Your task to perform on an android device: all mails in gmail Image 0: 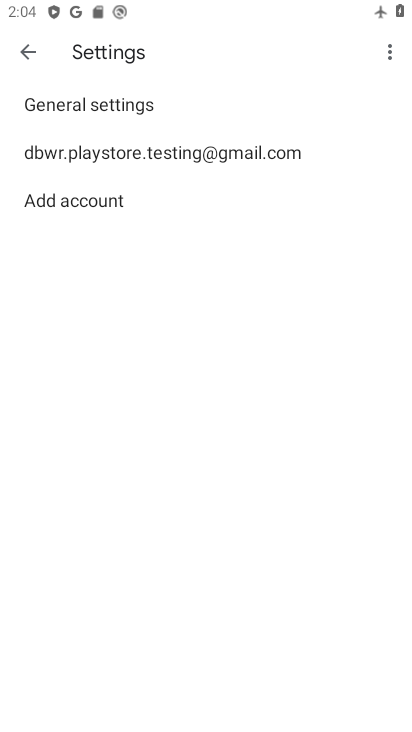
Step 0: press home button
Your task to perform on an android device: all mails in gmail Image 1: 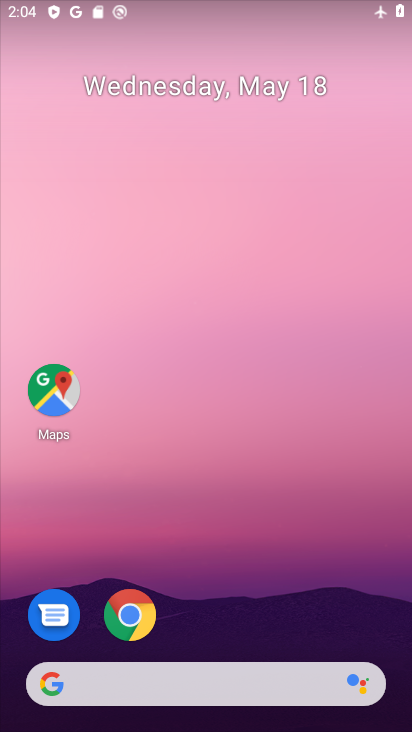
Step 1: drag from (21, 493) to (44, 267)
Your task to perform on an android device: all mails in gmail Image 2: 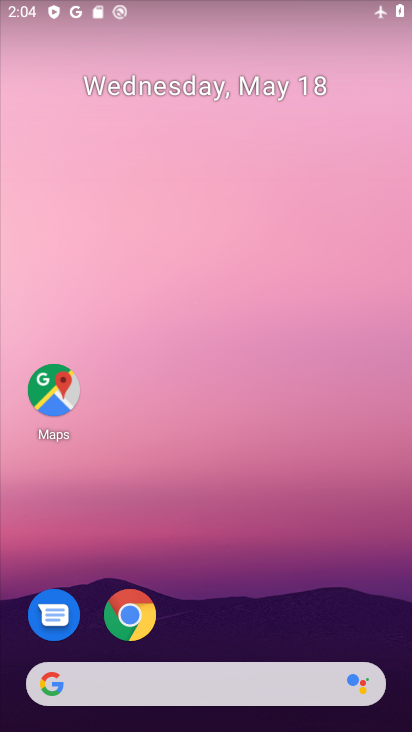
Step 2: drag from (223, 543) to (236, 134)
Your task to perform on an android device: all mails in gmail Image 3: 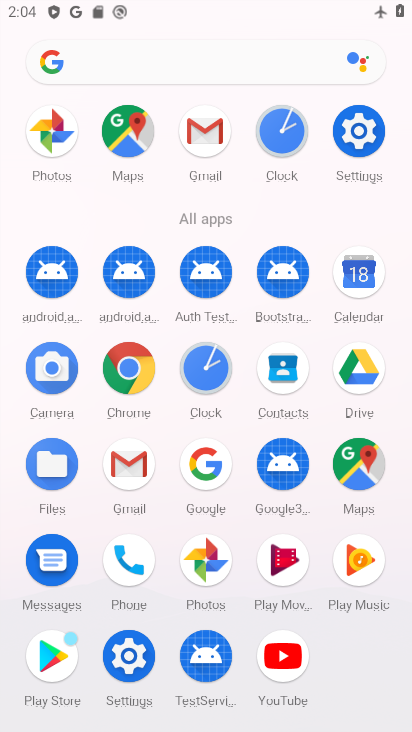
Step 3: click (211, 145)
Your task to perform on an android device: all mails in gmail Image 4: 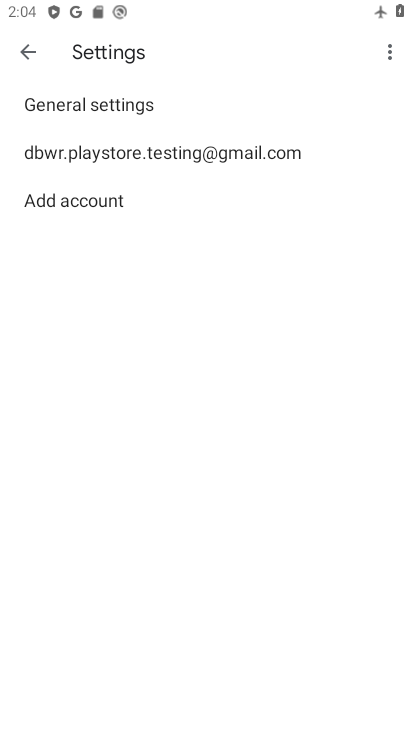
Step 4: click (147, 153)
Your task to perform on an android device: all mails in gmail Image 5: 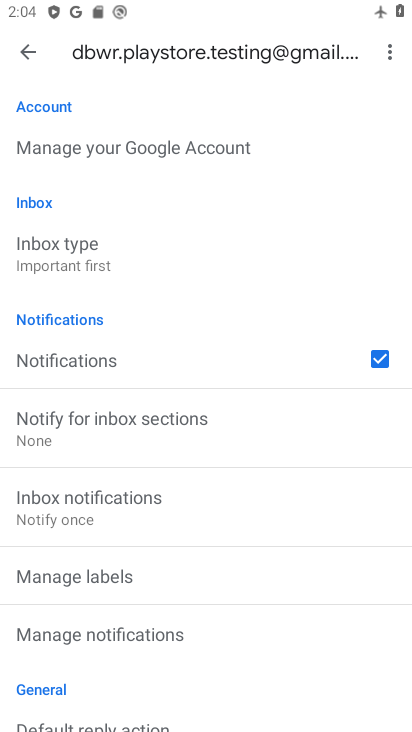
Step 5: click (28, 55)
Your task to perform on an android device: all mails in gmail Image 6: 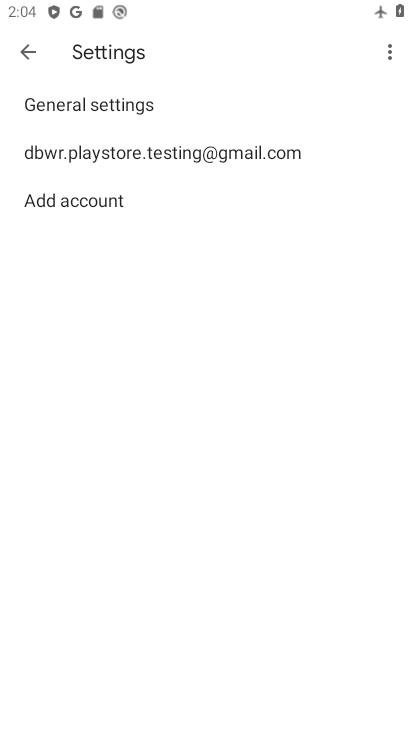
Step 6: click (28, 55)
Your task to perform on an android device: all mails in gmail Image 7: 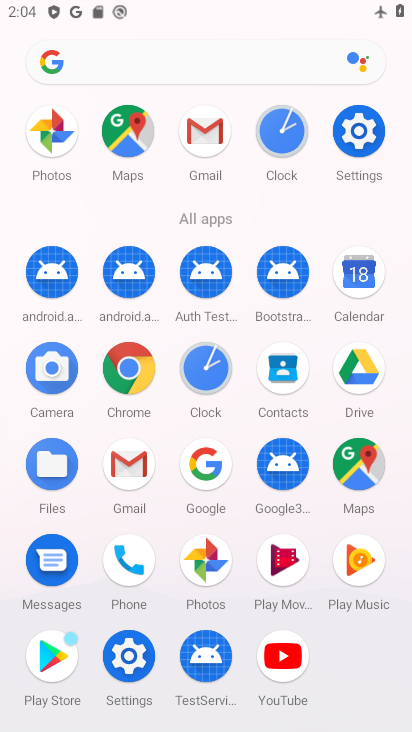
Step 7: click (210, 142)
Your task to perform on an android device: all mails in gmail Image 8: 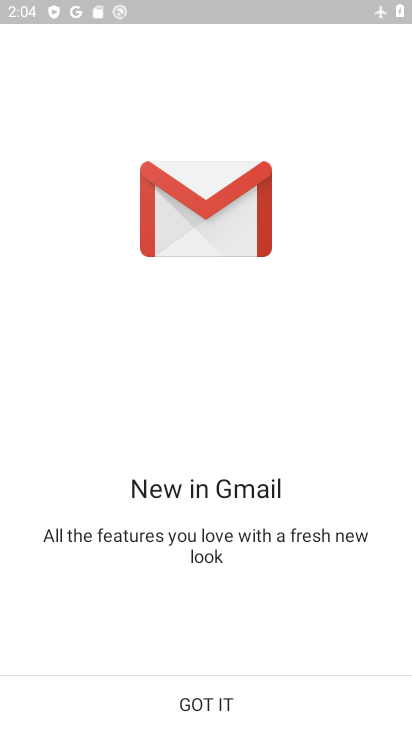
Step 8: click (195, 695)
Your task to perform on an android device: all mails in gmail Image 9: 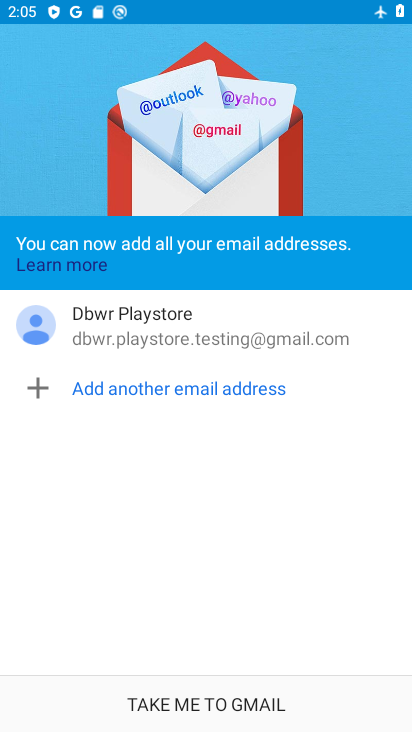
Step 9: click (210, 706)
Your task to perform on an android device: all mails in gmail Image 10: 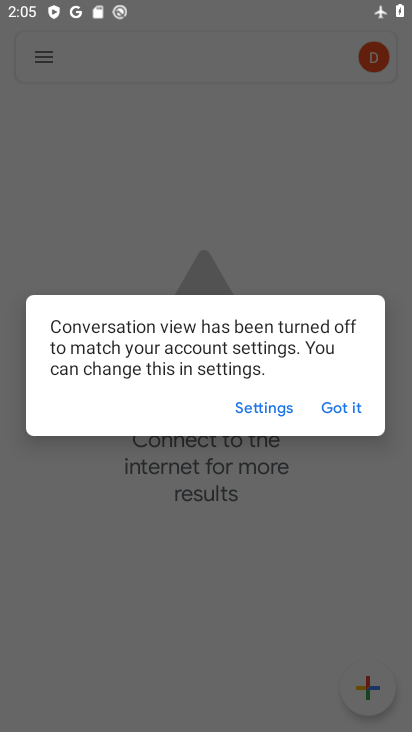
Step 10: click (351, 396)
Your task to perform on an android device: all mails in gmail Image 11: 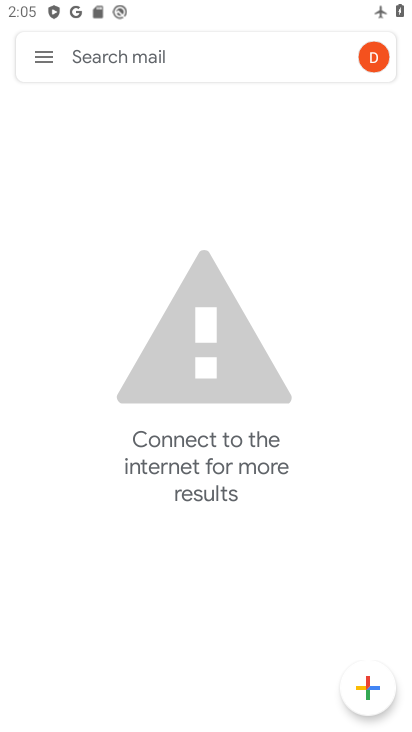
Step 11: click (34, 64)
Your task to perform on an android device: all mails in gmail Image 12: 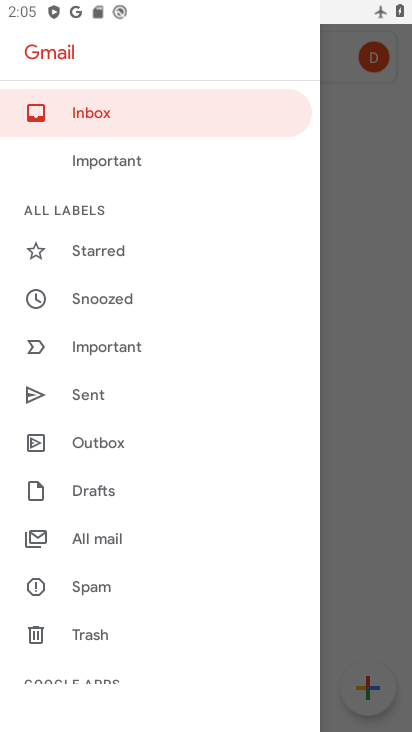
Step 12: click (106, 544)
Your task to perform on an android device: all mails in gmail Image 13: 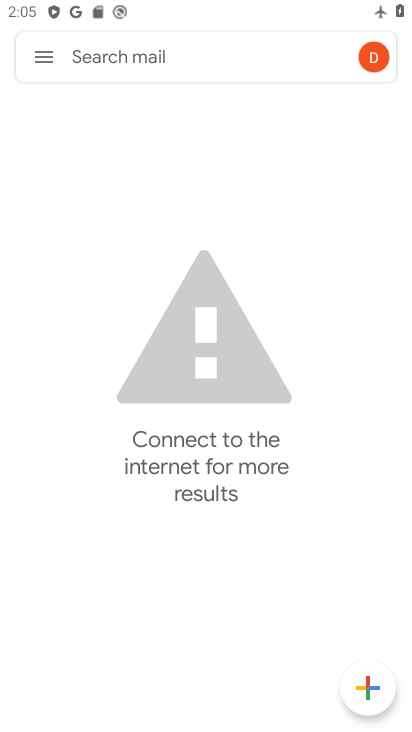
Step 13: task complete